Your task to perform on an android device: check data usage Image 0: 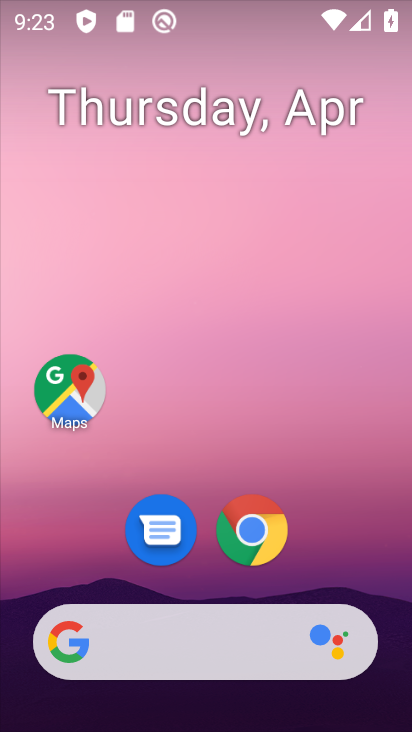
Step 0: drag from (353, 545) to (221, 35)
Your task to perform on an android device: check data usage Image 1: 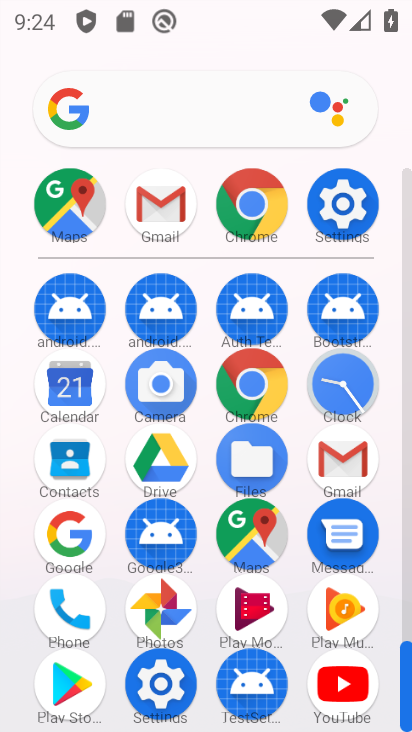
Step 1: click (322, 218)
Your task to perform on an android device: check data usage Image 2: 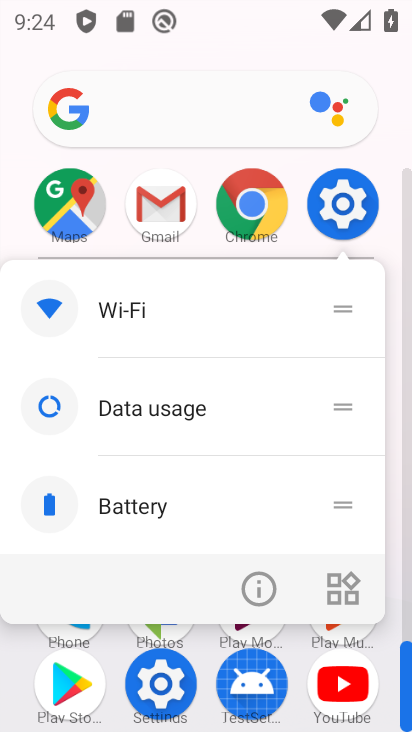
Step 2: click (322, 218)
Your task to perform on an android device: check data usage Image 3: 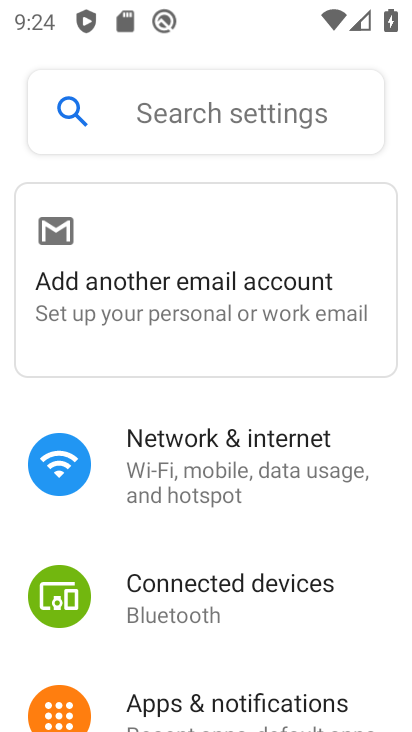
Step 3: click (224, 478)
Your task to perform on an android device: check data usage Image 4: 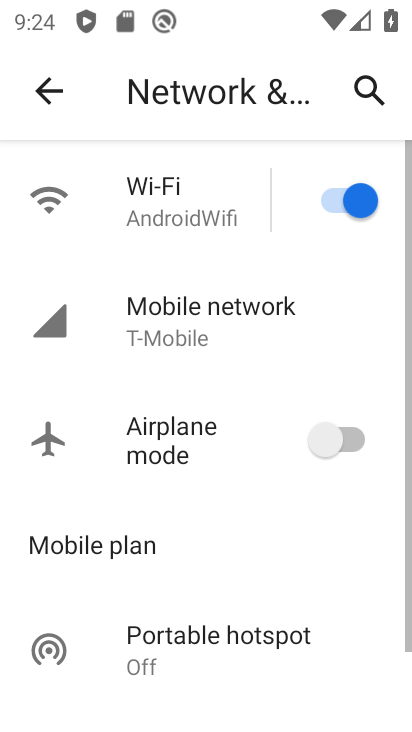
Step 4: click (173, 339)
Your task to perform on an android device: check data usage Image 5: 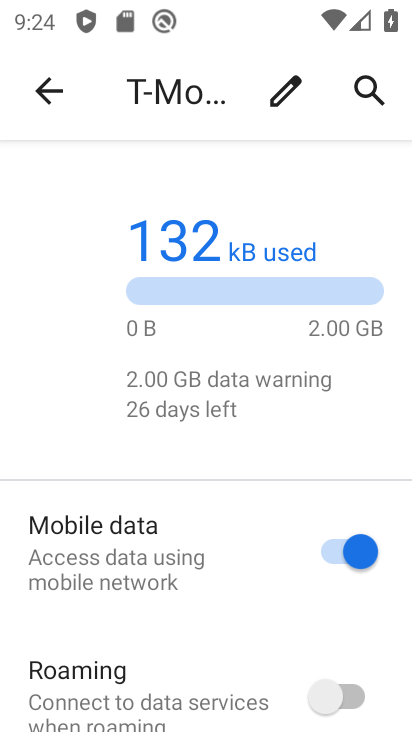
Step 5: drag from (142, 634) to (217, 193)
Your task to perform on an android device: check data usage Image 6: 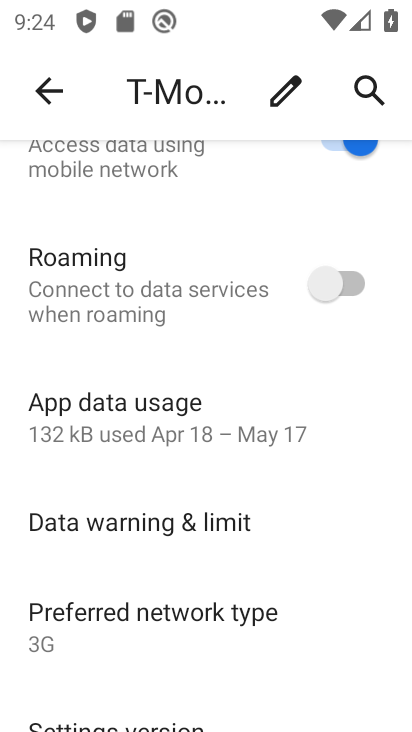
Step 6: click (170, 399)
Your task to perform on an android device: check data usage Image 7: 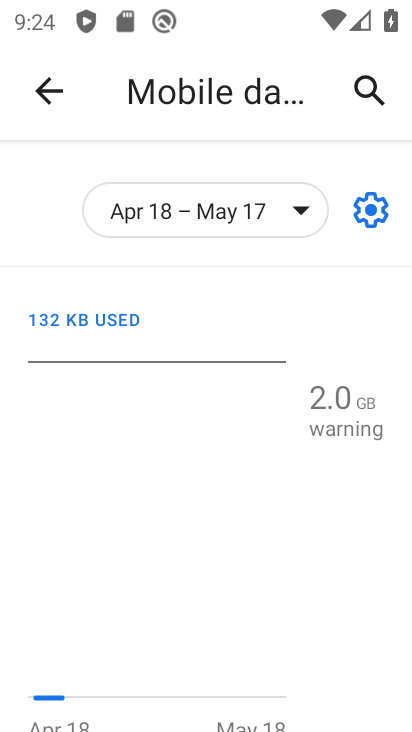
Step 7: task complete